Your task to perform on an android device: change the upload size in google photos Image 0: 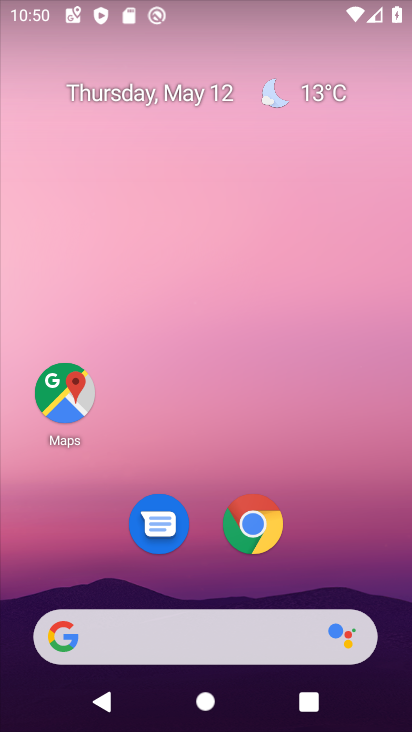
Step 0: drag from (215, 469) to (272, 131)
Your task to perform on an android device: change the upload size in google photos Image 1: 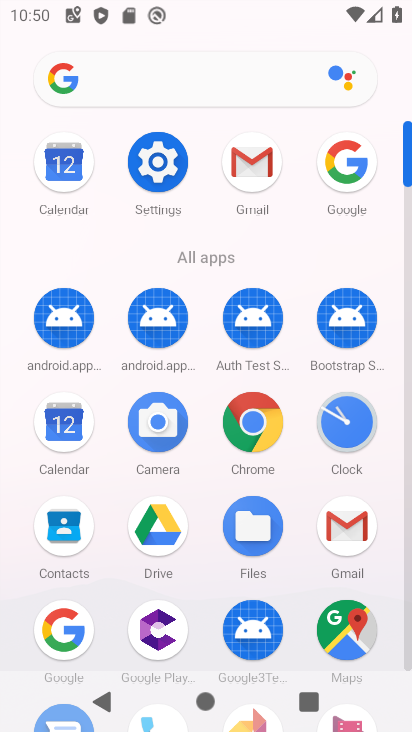
Step 1: drag from (188, 554) to (256, 228)
Your task to perform on an android device: change the upload size in google photos Image 2: 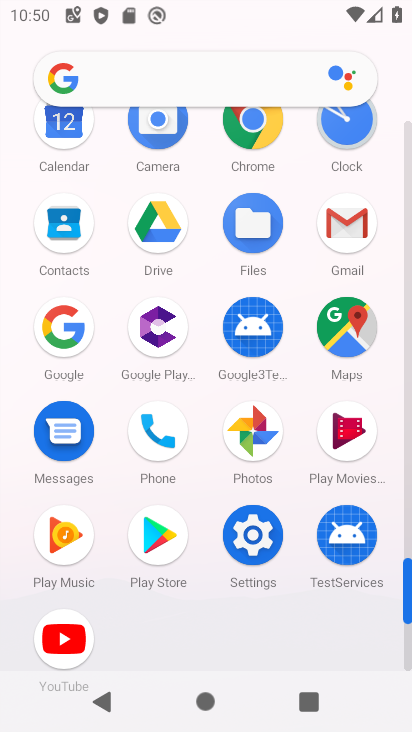
Step 2: click (243, 430)
Your task to perform on an android device: change the upload size in google photos Image 3: 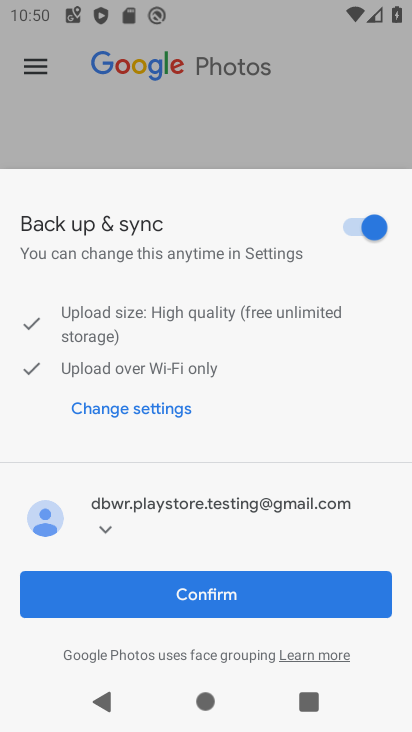
Step 3: click (26, 62)
Your task to perform on an android device: change the upload size in google photos Image 4: 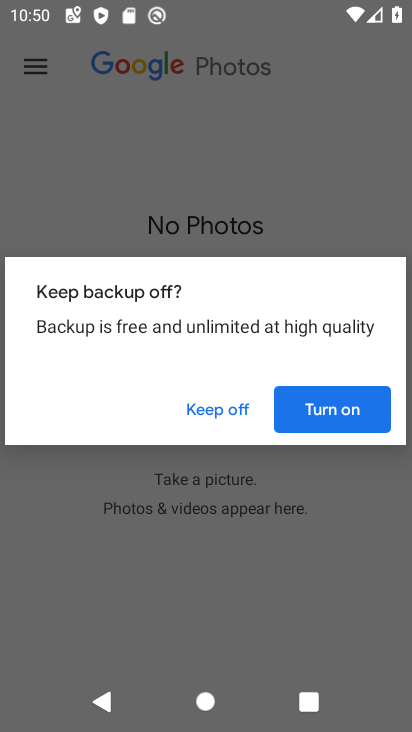
Step 4: click (325, 411)
Your task to perform on an android device: change the upload size in google photos Image 5: 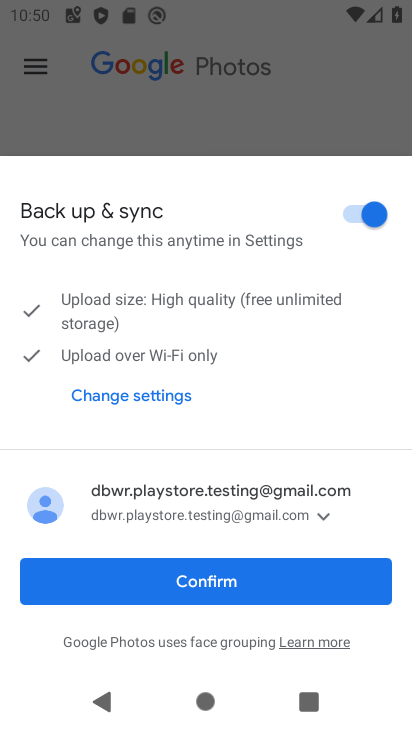
Step 5: click (280, 578)
Your task to perform on an android device: change the upload size in google photos Image 6: 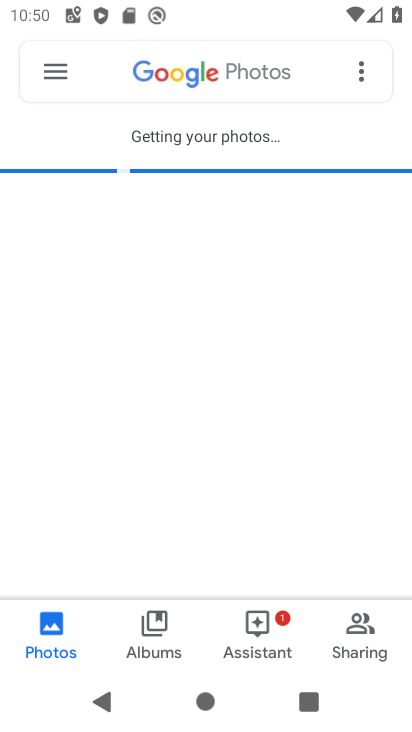
Step 6: click (48, 71)
Your task to perform on an android device: change the upload size in google photos Image 7: 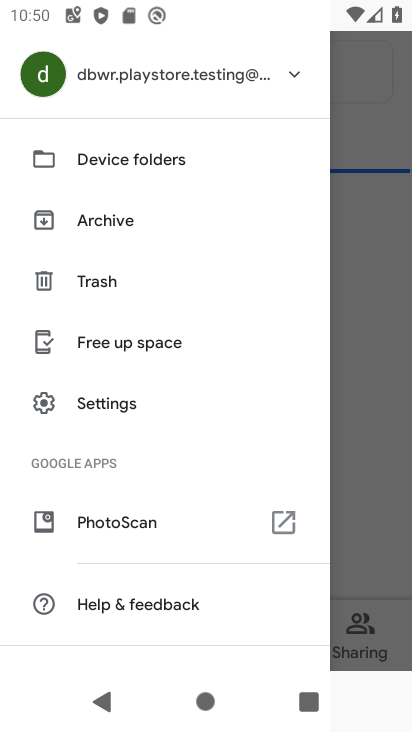
Step 7: click (106, 404)
Your task to perform on an android device: change the upload size in google photos Image 8: 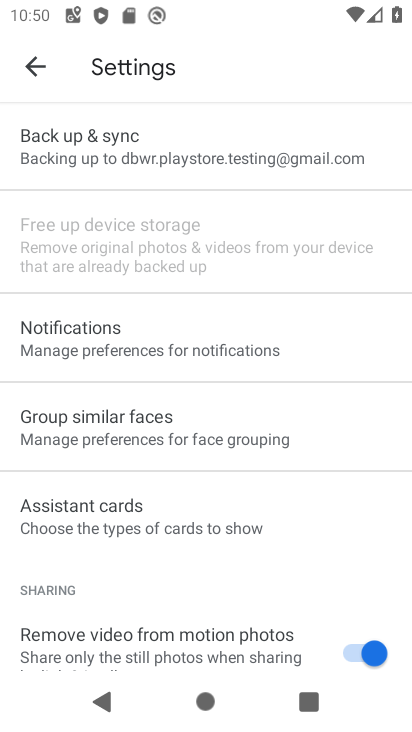
Step 8: click (136, 148)
Your task to perform on an android device: change the upload size in google photos Image 9: 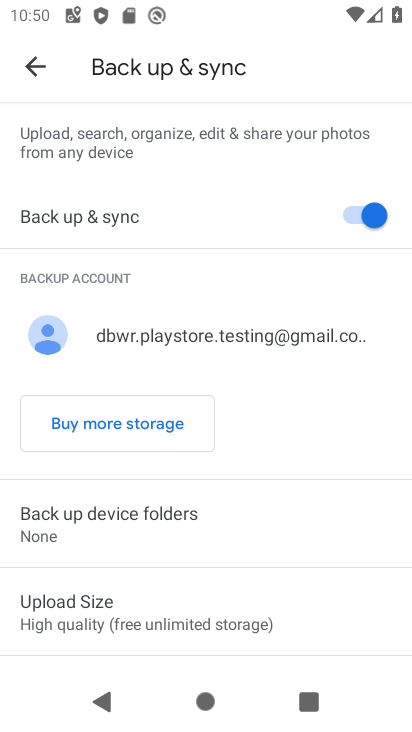
Step 9: click (156, 615)
Your task to perform on an android device: change the upload size in google photos Image 10: 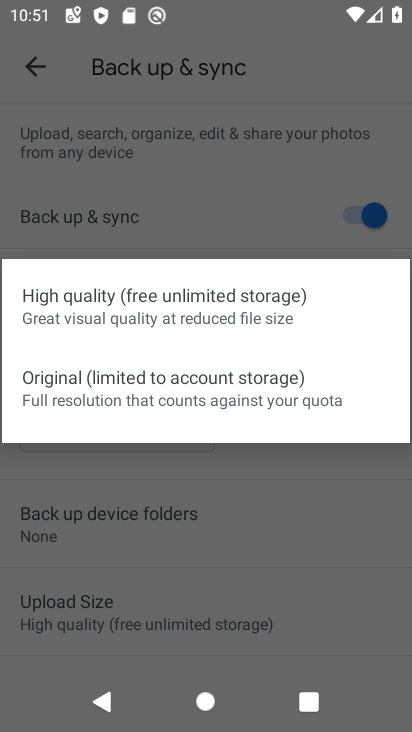
Step 10: click (233, 390)
Your task to perform on an android device: change the upload size in google photos Image 11: 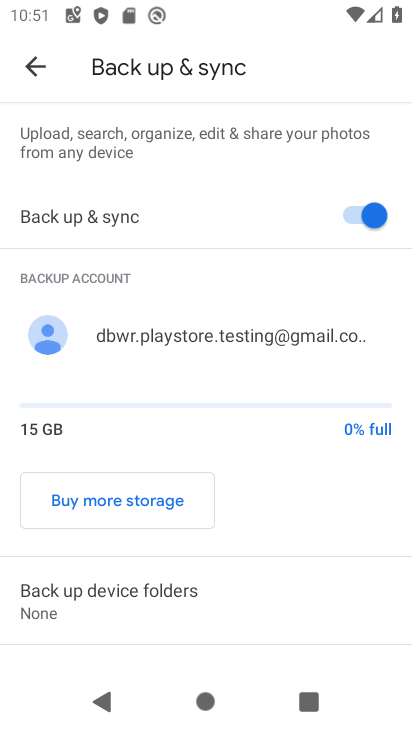
Step 11: task complete